Your task to perform on an android device: Show the shopping cart on bestbuy. Image 0: 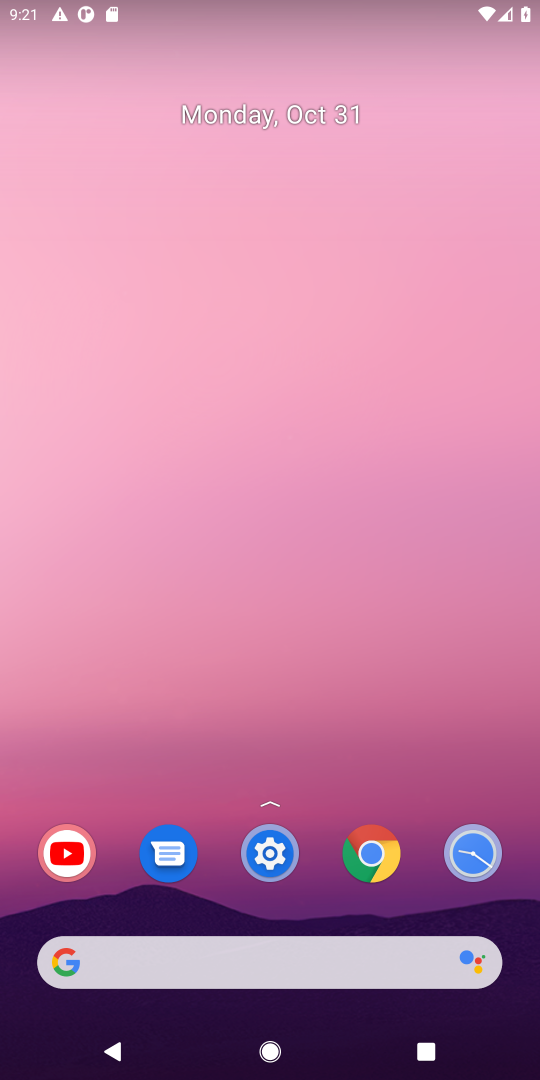
Step 0: click (236, 946)
Your task to perform on an android device: Show the shopping cart on bestbuy. Image 1: 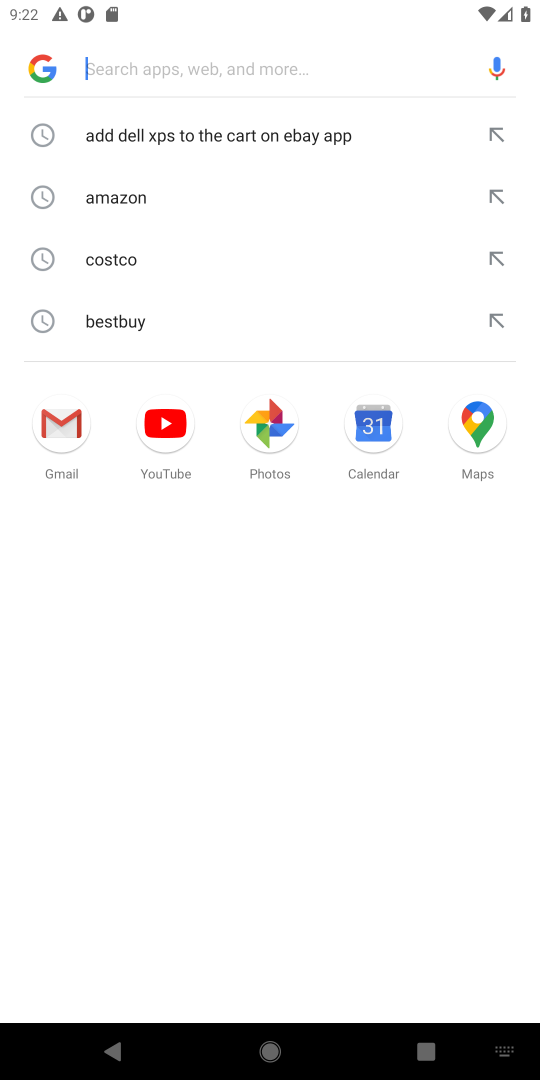
Step 1: type "bestbuy"
Your task to perform on an android device: Show the shopping cart on bestbuy. Image 2: 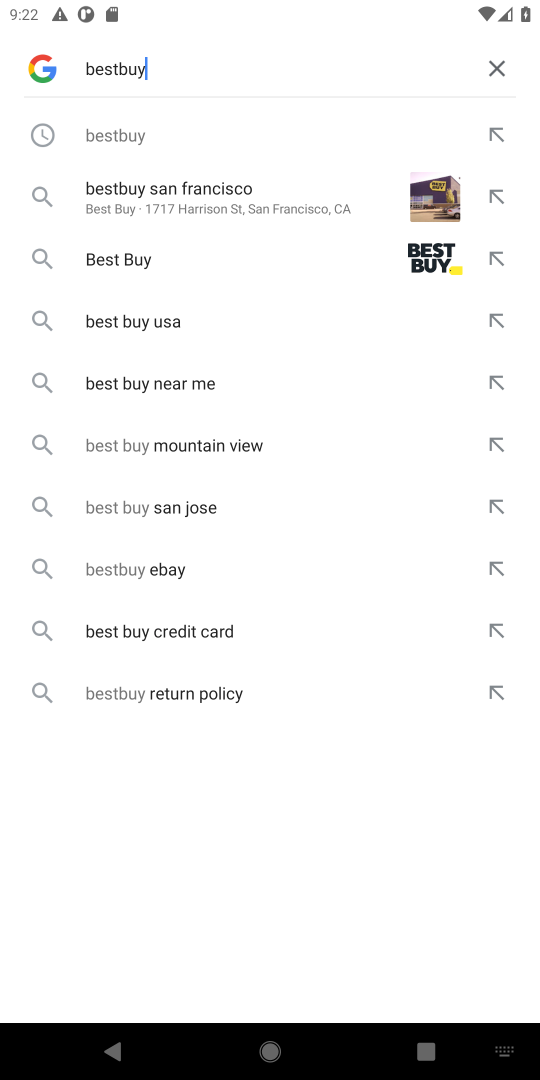
Step 2: click (117, 133)
Your task to perform on an android device: Show the shopping cart on bestbuy. Image 3: 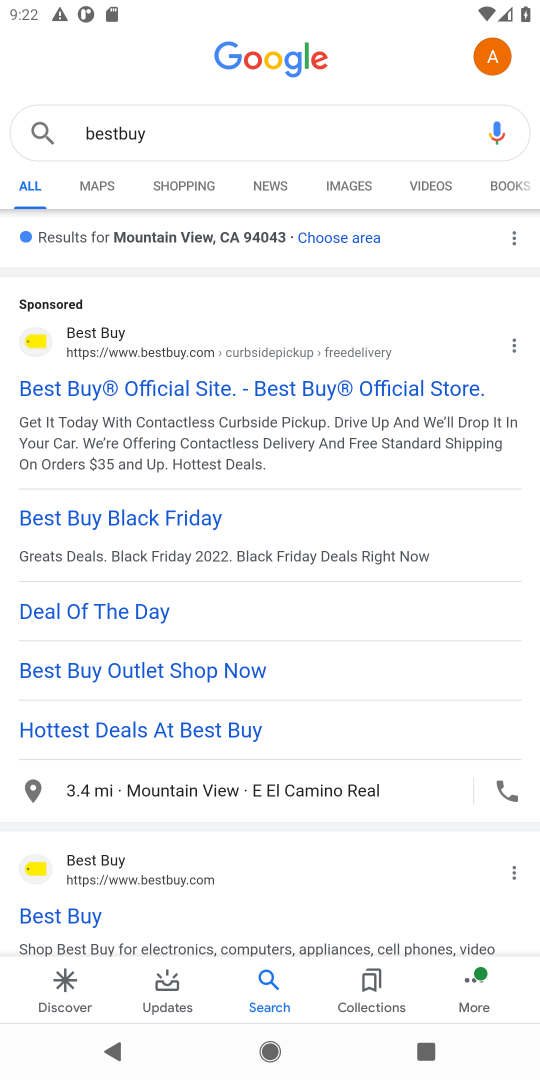
Step 3: click (172, 381)
Your task to perform on an android device: Show the shopping cart on bestbuy. Image 4: 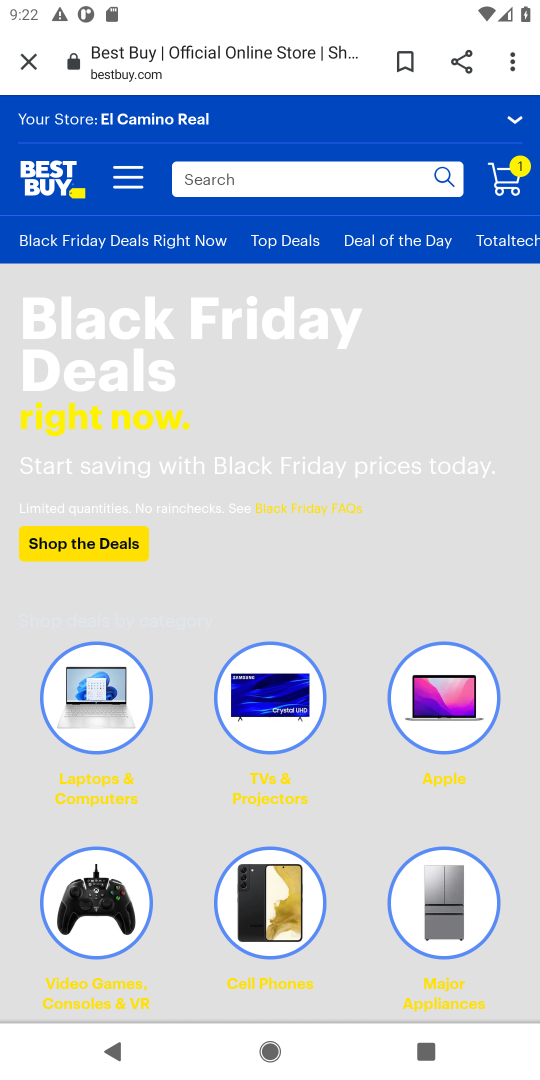
Step 4: task complete